Your task to perform on an android device: Go to Amazon Image 0: 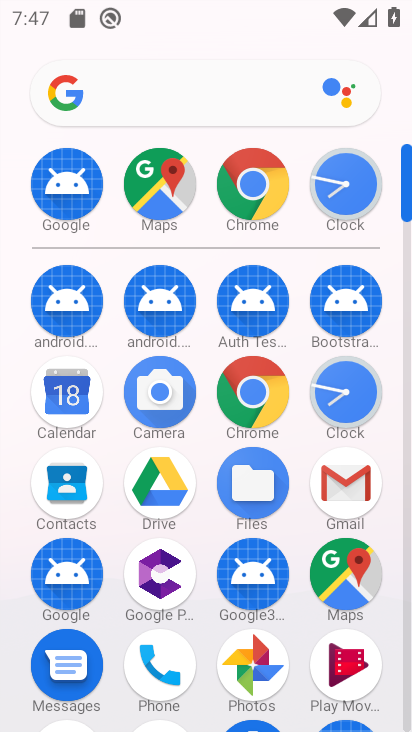
Step 0: click (269, 388)
Your task to perform on an android device: Go to Amazon Image 1: 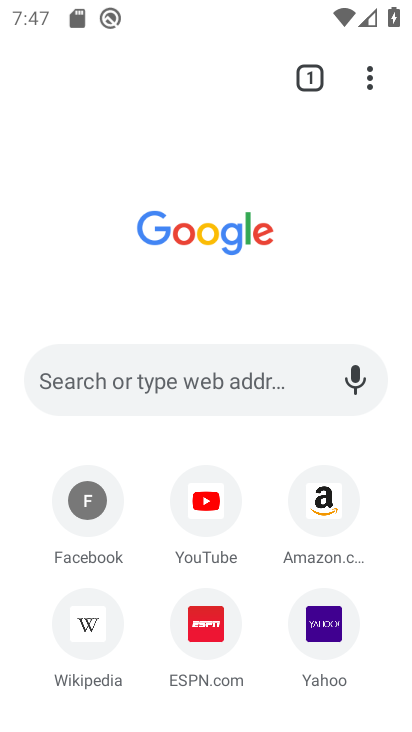
Step 1: click (153, 374)
Your task to perform on an android device: Go to Amazon Image 2: 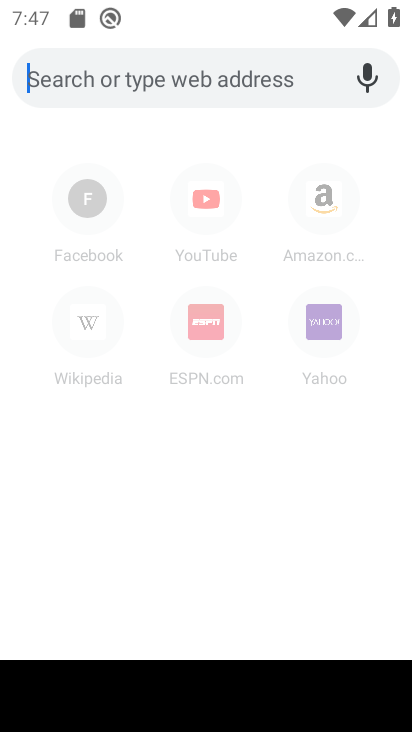
Step 2: type "amazon"
Your task to perform on an android device: Go to Amazon Image 3: 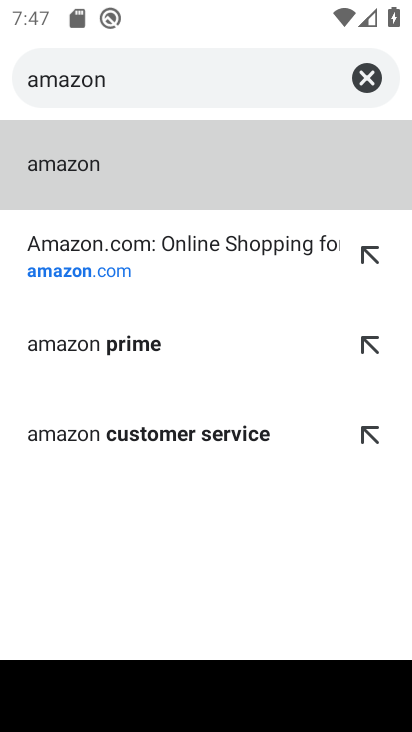
Step 3: click (258, 169)
Your task to perform on an android device: Go to Amazon Image 4: 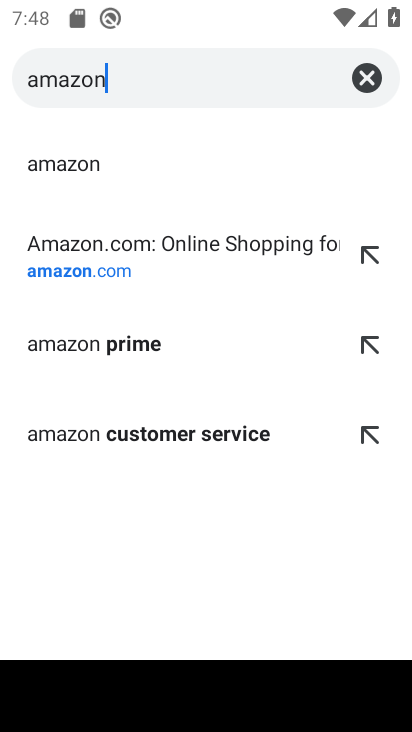
Step 4: click (258, 169)
Your task to perform on an android device: Go to Amazon Image 5: 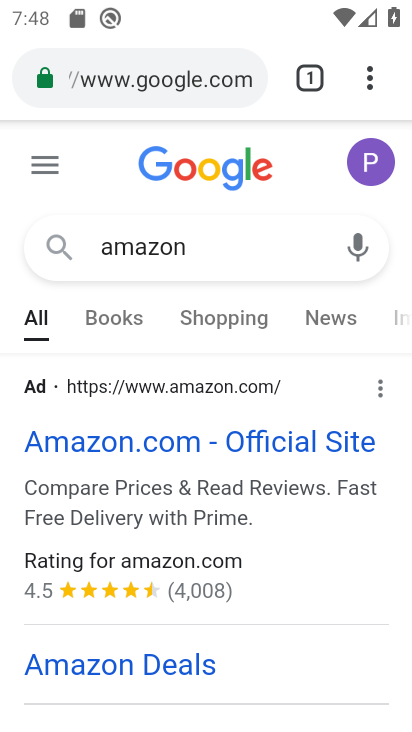
Step 5: task complete